Your task to perform on an android device: install app "Google Play Music" Image 0: 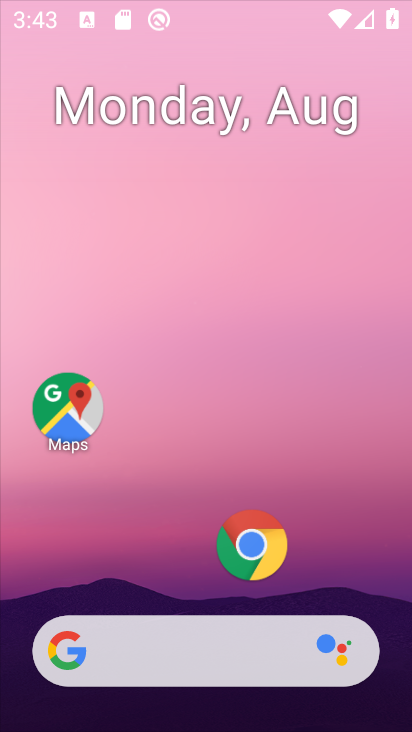
Step 0: drag from (251, 139) to (277, 29)
Your task to perform on an android device: install app "Google Play Music" Image 1: 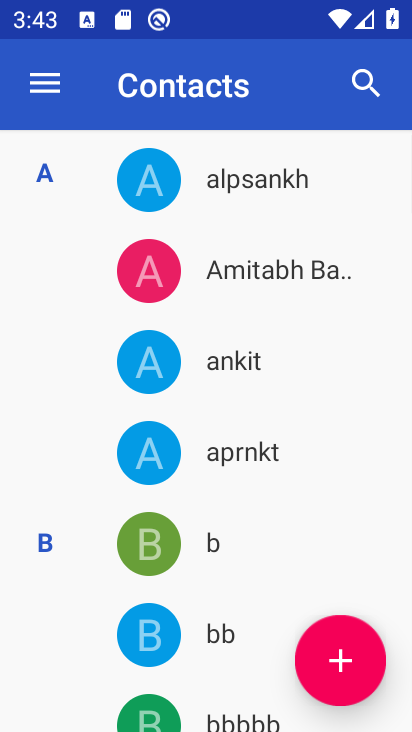
Step 1: press home button
Your task to perform on an android device: install app "Google Play Music" Image 2: 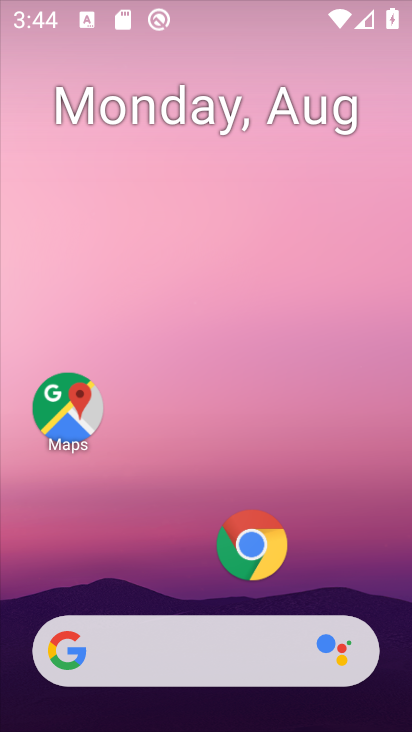
Step 2: drag from (154, 371) to (173, 40)
Your task to perform on an android device: install app "Google Play Music" Image 3: 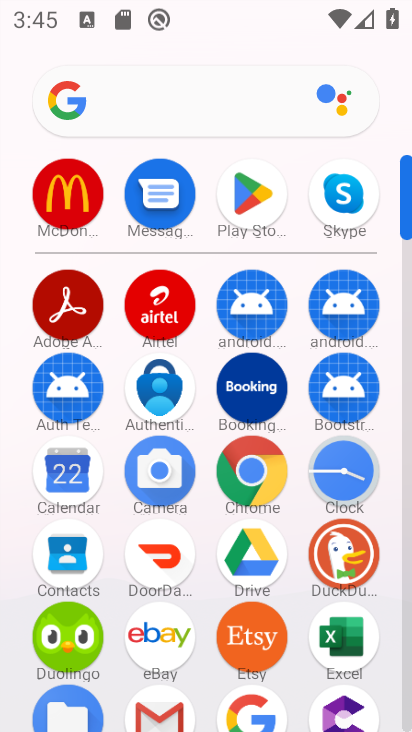
Step 3: click (260, 202)
Your task to perform on an android device: install app "Google Play Music" Image 4: 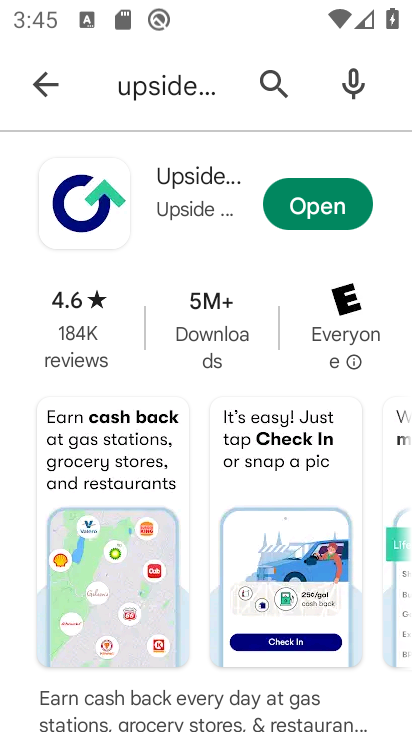
Step 4: click (286, 85)
Your task to perform on an android device: install app "Google Play Music" Image 5: 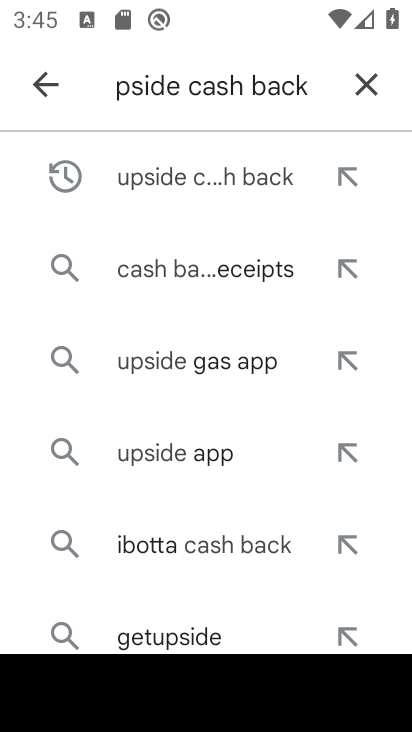
Step 5: click (372, 87)
Your task to perform on an android device: install app "Google Play Music" Image 6: 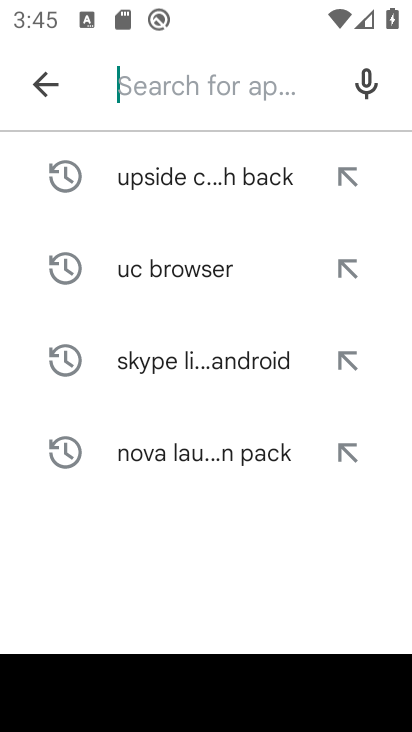
Step 6: click (124, 75)
Your task to perform on an android device: install app "Google Play Music" Image 7: 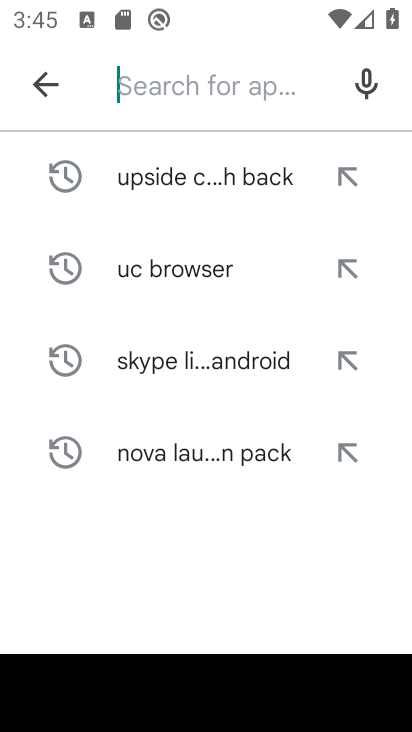
Step 7: type "Google Play Music"
Your task to perform on an android device: install app "Google Play Music" Image 8: 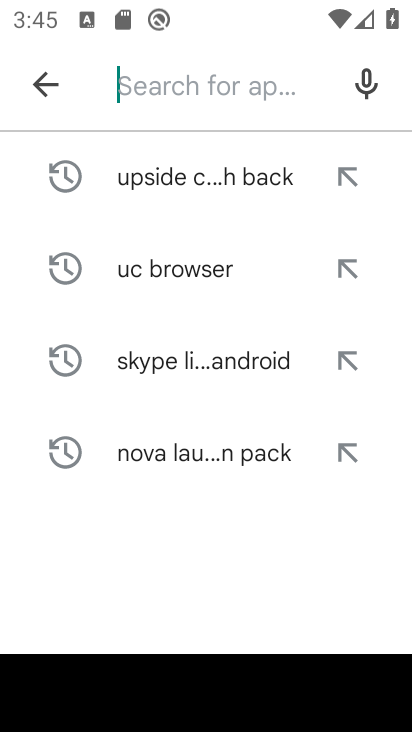
Step 8: click (228, 554)
Your task to perform on an android device: install app "Google Play Music" Image 9: 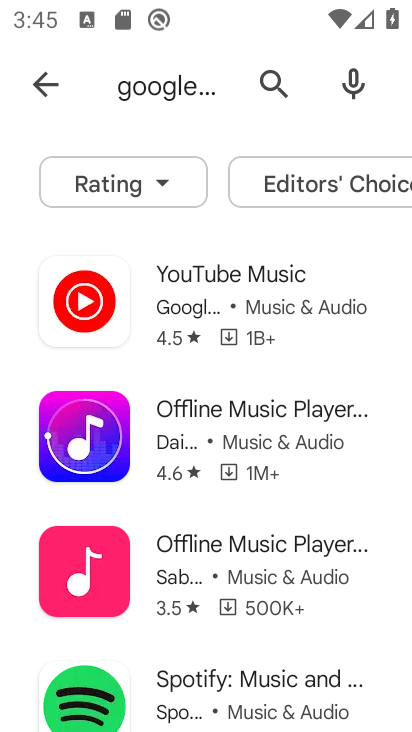
Step 9: task complete